Your task to perform on an android device: Search for Italian restaurants on Maps Image 0: 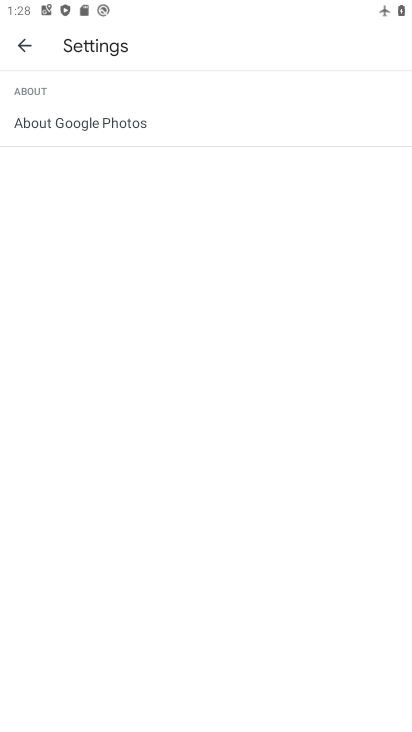
Step 0: press home button
Your task to perform on an android device: Search for Italian restaurants on Maps Image 1: 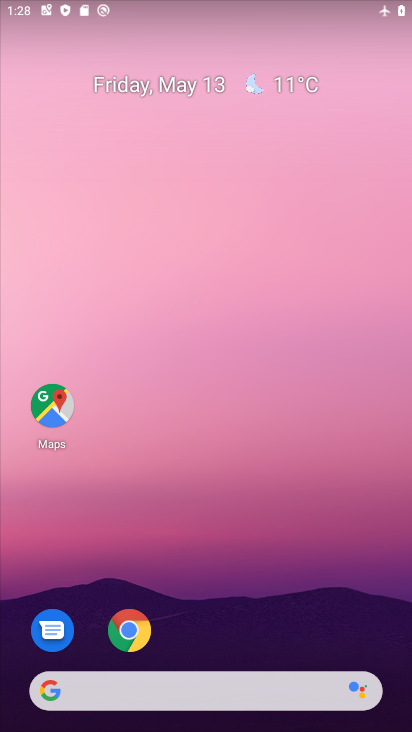
Step 1: click (52, 414)
Your task to perform on an android device: Search for Italian restaurants on Maps Image 2: 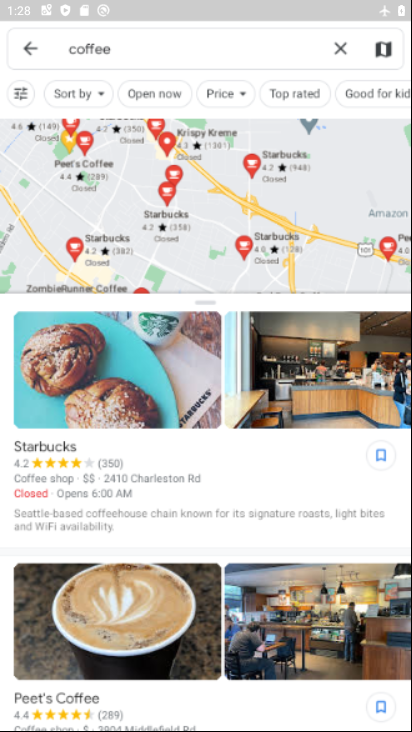
Step 2: click (339, 45)
Your task to perform on an android device: Search for Italian restaurants on Maps Image 3: 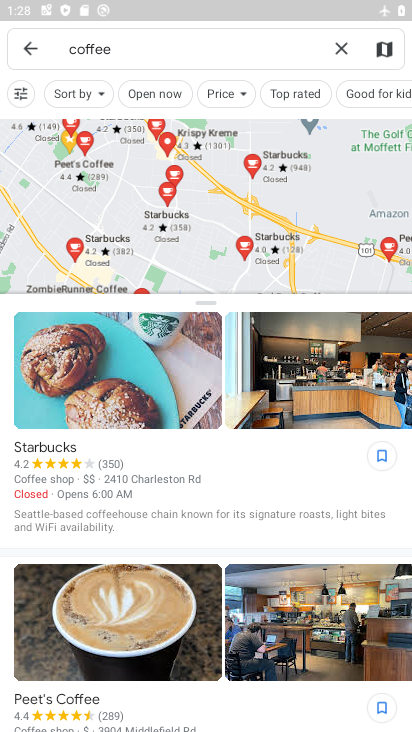
Step 3: click (341, 48)
Your task to perform on an android device: Search for Italian restaurants on Maps Image 4: 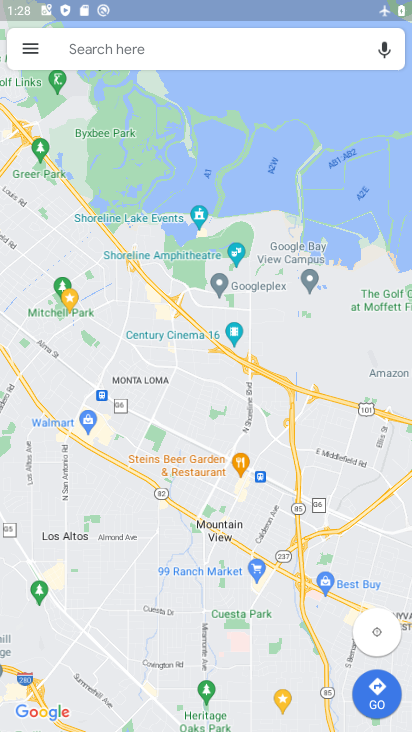
Step 4: click (79, 47)
Your task to perform on an android device: Search for Italian restaurants on Maps Image 5: 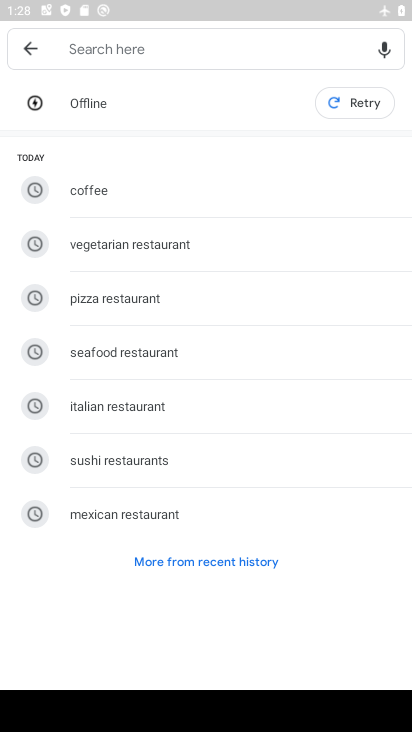
Step 5: type "italian restaurant"
Your task to perform on an android device: Search for Italian restaurants on Maps Image 6: 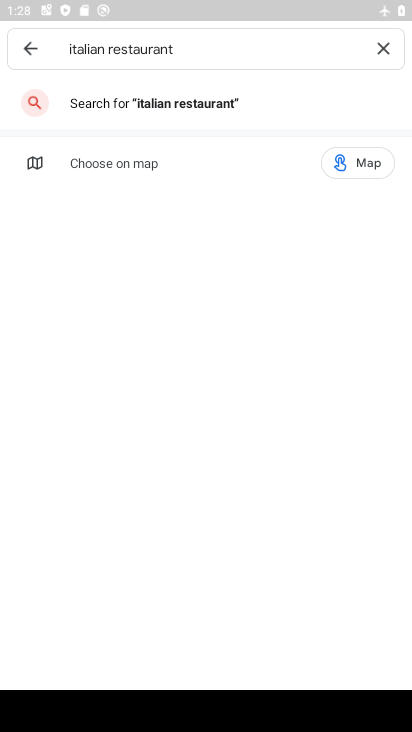
Step 6: click (189, 108)
Your task to perform on an android device: Search for Italian restaurants on Maps Image 7: 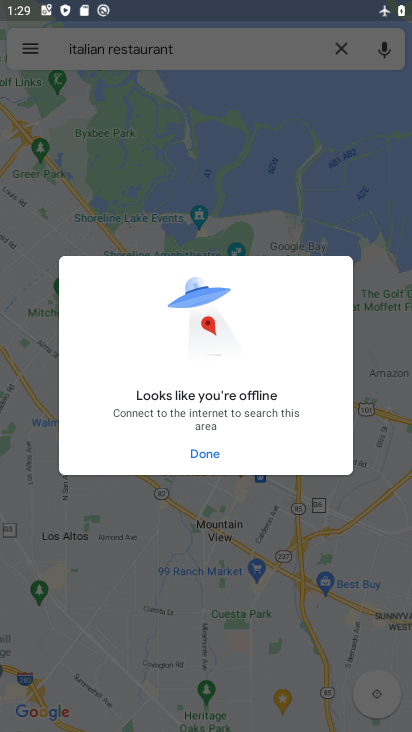
Step 7: task complete